Your task to perform on an android device: turn on location history Image 0: 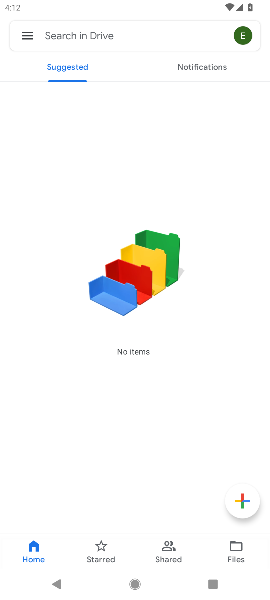
Step 0: click (113, 493)
Your task to perform on an android device: turn on location history Image 1: 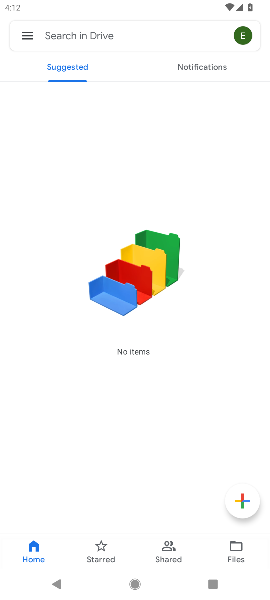
Step 1: press home button
Your task to perform on an android device: turn on location history Image 2: 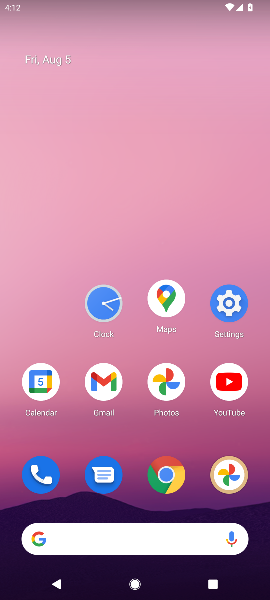
Step 2: click (218, 294)
Your task to perform on an android device: turn on location history Image 3: 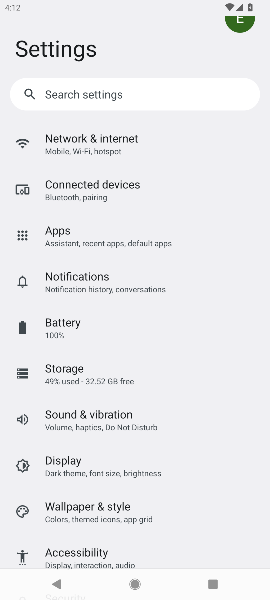
Step 3: drag from (184, 530) to (190, 286)
Your task to perform on an android device: turn on location history Image 4: 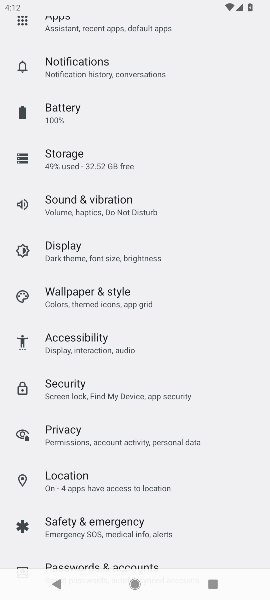
Step 4: click (104, 478)
Your task to perform on an android device: turn on location history Image 5: 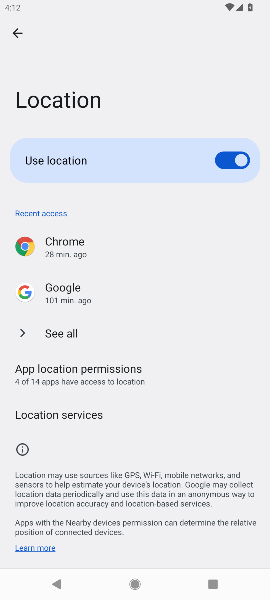
Step 5: drag from (143, 434) to (163, 280)
Your task to perform on an android device: turn on location history Image 6: 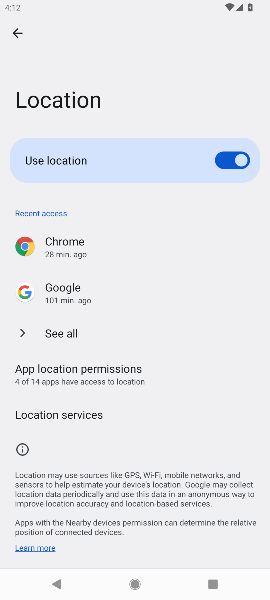
Step 6: click (50, 371)
Your task to perform on an android device: turn on location history Image 7: 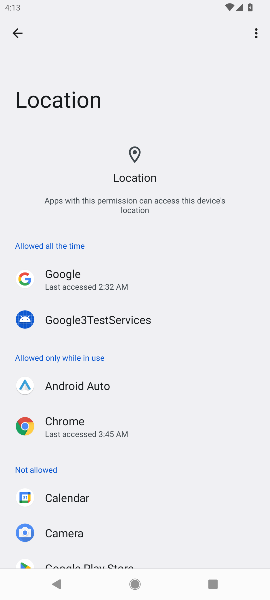
Step 7: task complete